Your task to perform on an android device: toggle improve location accuracy Image 0: 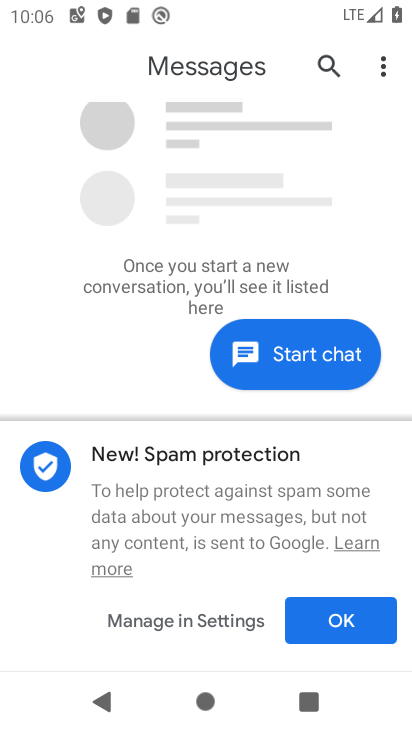
Step 0: press home button
Your task to perform on an android device: toggle improve location accuracy Image 1: 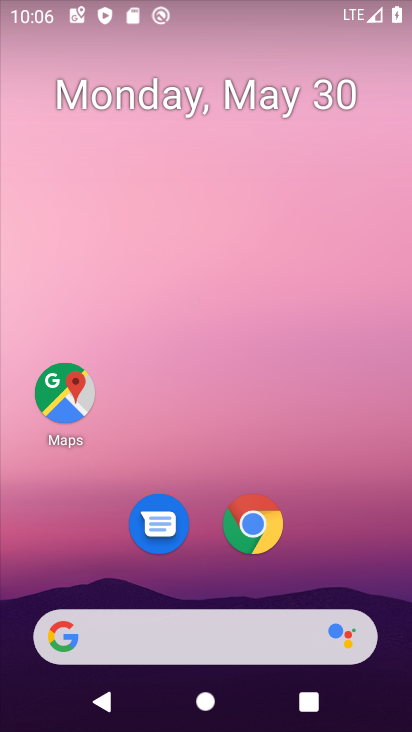
Step 1: drag from (309, 526) to (372, 15)
Your task to perform on an android device: toggle improve location accuracy Image 2: 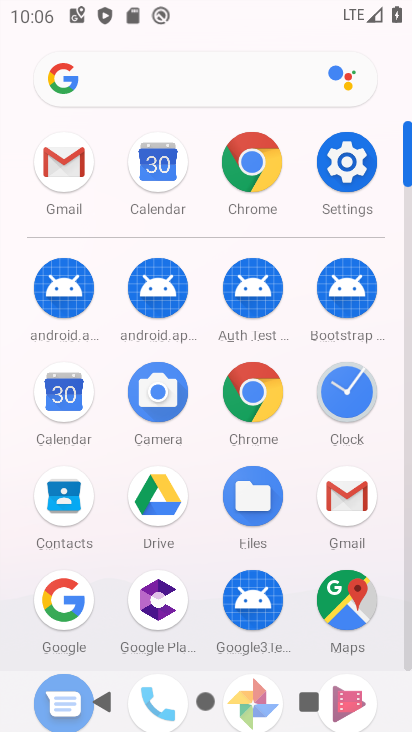
Step 2: click (351, 214)
Your task to perform on an android device: toggle improve location accuracy Image 3: 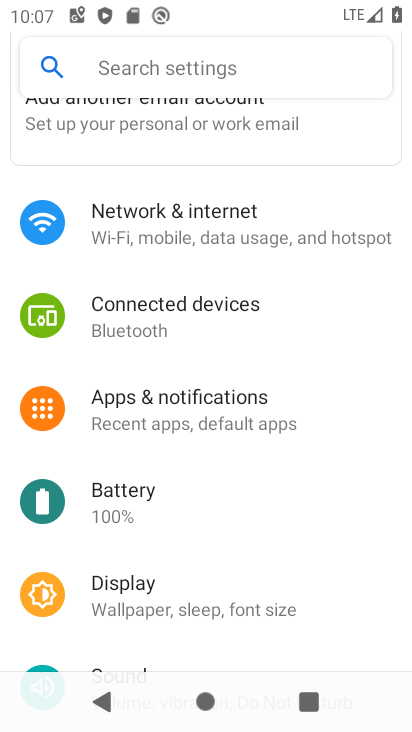
Step 3: drag from (235, 490) to (252, 18)
Your task to perform on an android device: toggle improve location accuracy Image 4: 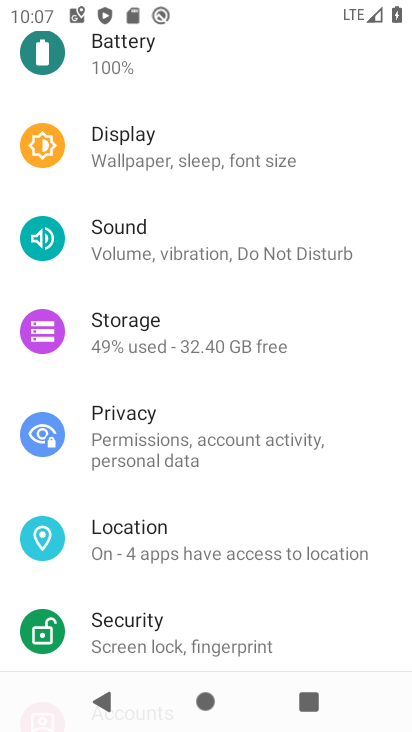
Step 4: click (248, 560)
Your task to perform on an android device: toggle improve location accuracy Image 5: 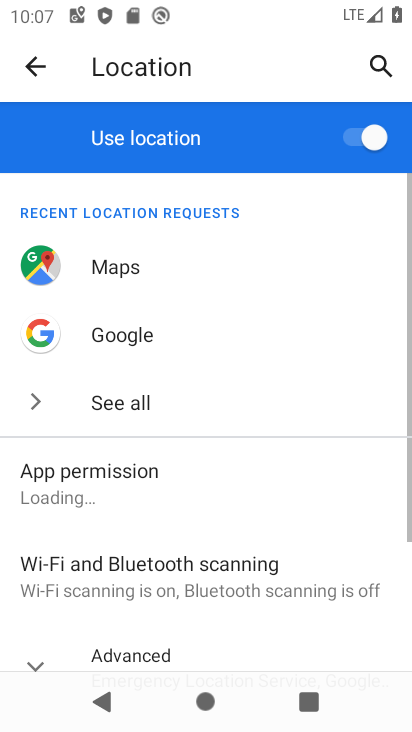
Step 5: drag from (239, 497) to (268, 89)
Your task to perform on an android device: toggle improve location accuracy Image 6: 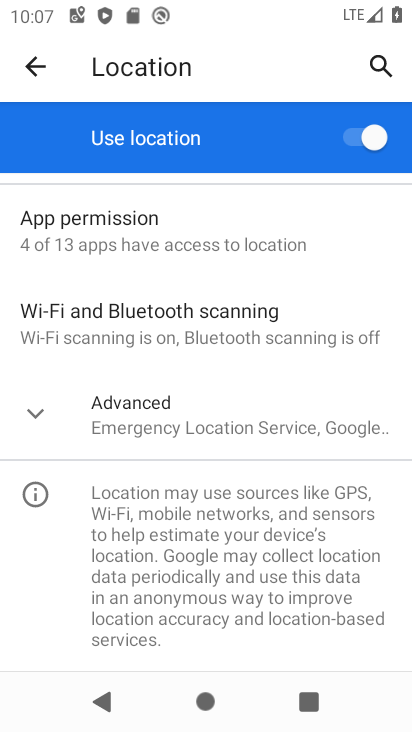
Step 6: click (36, 411)
Your task to perform on an android device: toggle improve location accuracy Image 7: 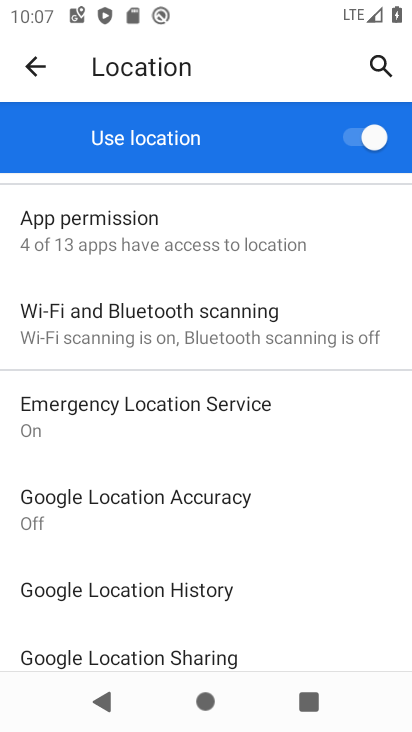
Step 7: click (207, 517)
Your task to perform on an android device: toggle improve location accuracy Image 8: 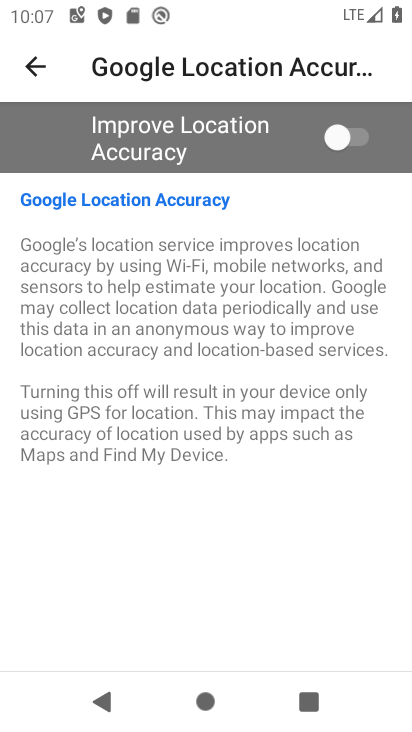
Step 8: click (348, 126)
Your task to perform on an android device: toggle improve location accuracy Image 9: 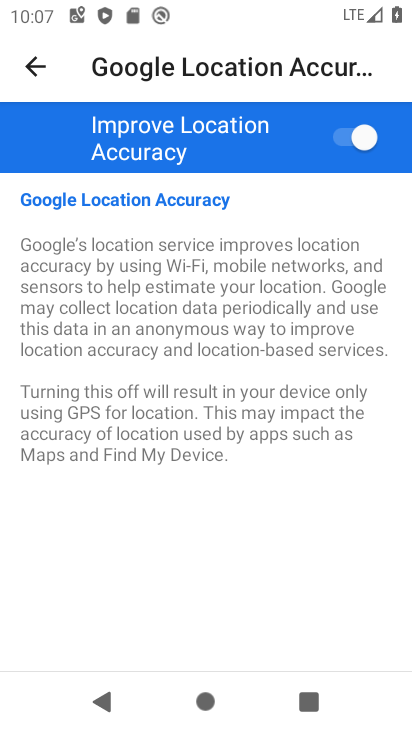
Step 9: task complete